Your task to perform on an android device: Open eBay Image 0: 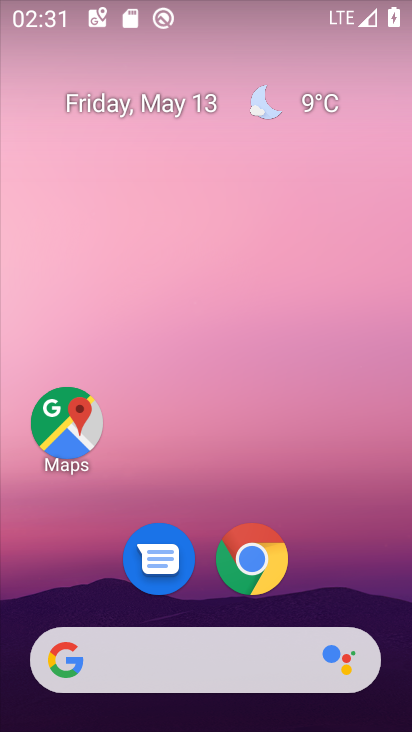
Step 0: click (258, 560)
Your task to perform on an android device: Open eBay Image 1: 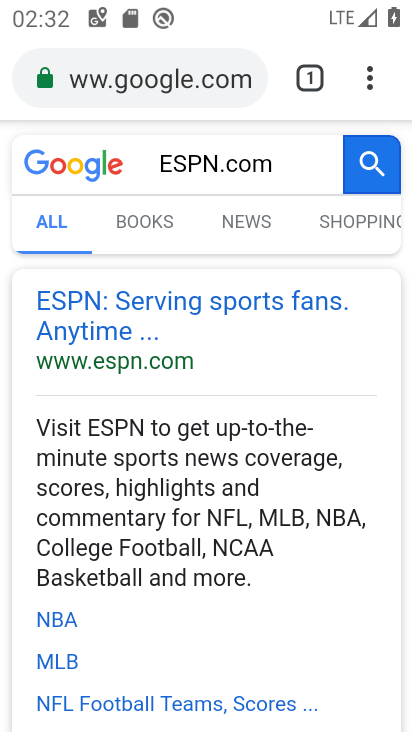
Step 1: click (252, 79)
Your task to perform on an android device: Open eBay Image 2: 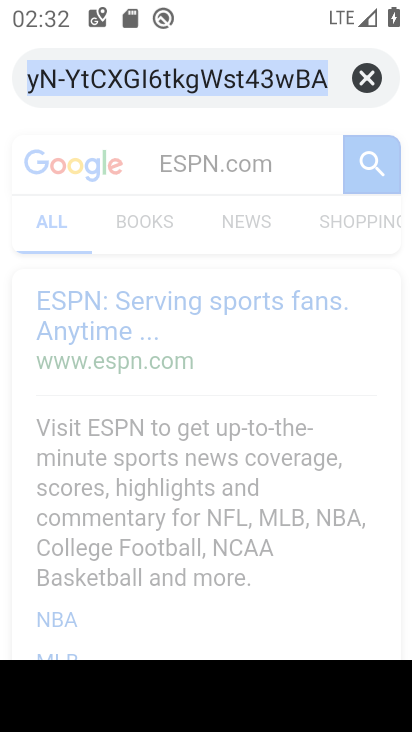
Step 2: click (354, 63)
Your task to perform on an android device: Open eBay Image 3: 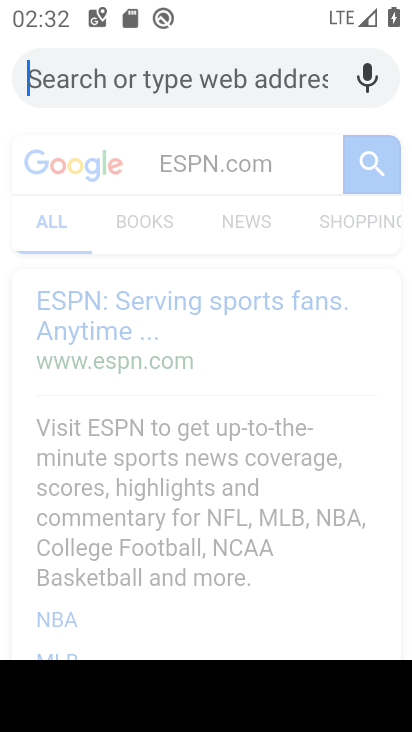
Step 3: type "eBay"
Your task to perform on an android device: Open eBay Image 4: 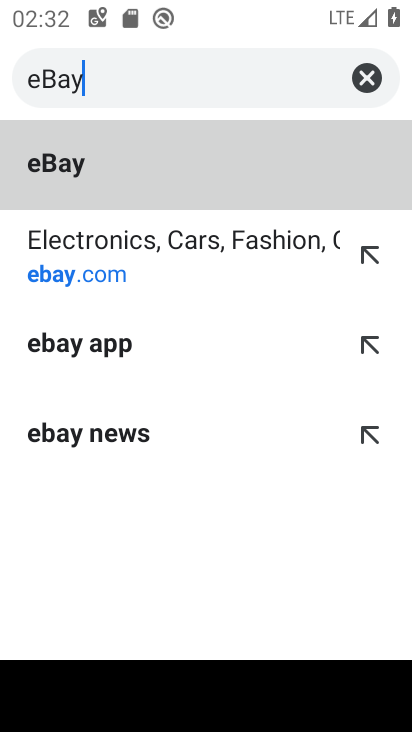
Step 4: click (74, 86)
Your task to perform on an android device: Open eBay Image 5: 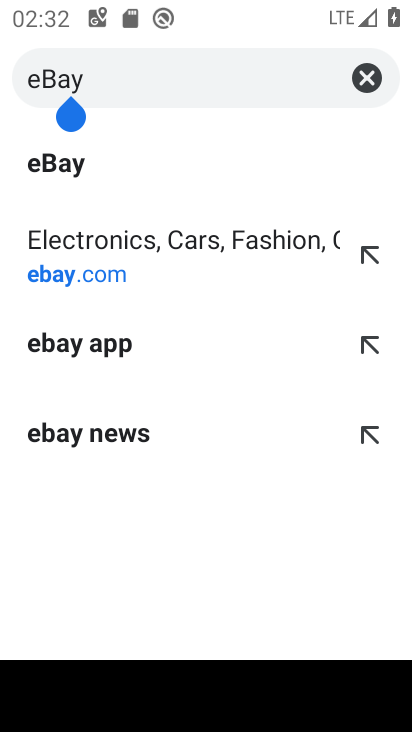
Step 5: click (83, 170)
Your task to perform on an android device: Open eBay Image 6: 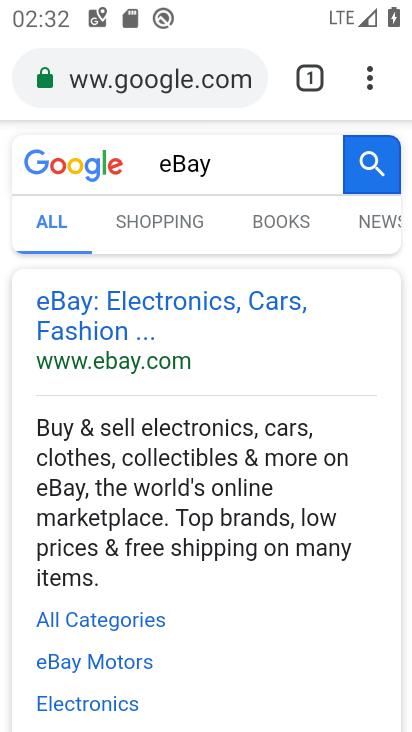
Step 6: task complete